Your task to perform on an android device: turn on location history Image 0: 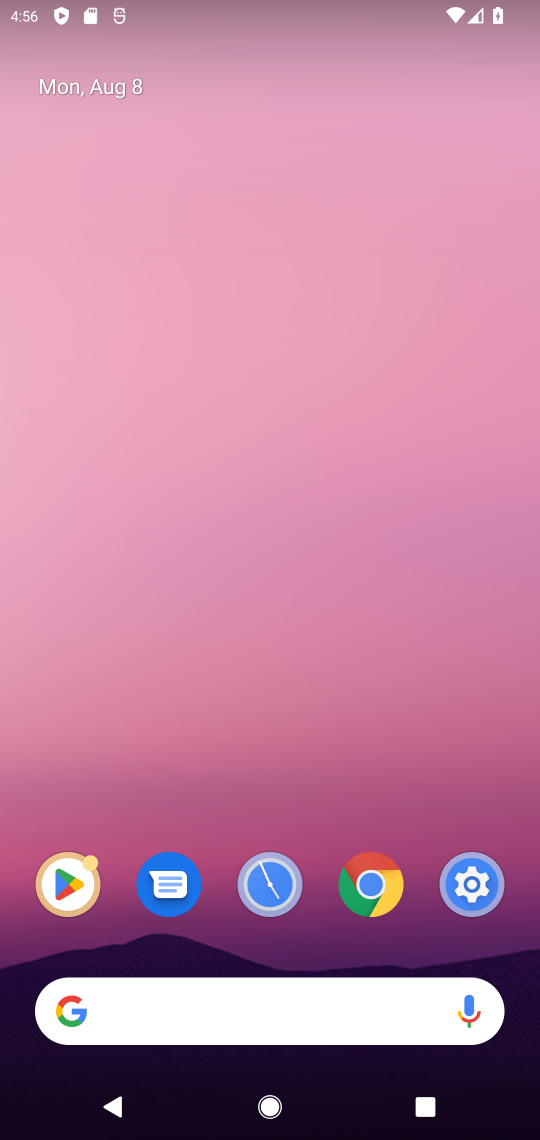
Step 0: drag from (320, 815) to (325, 16)
Your task to perform on an android device: turn on location history Image 1: 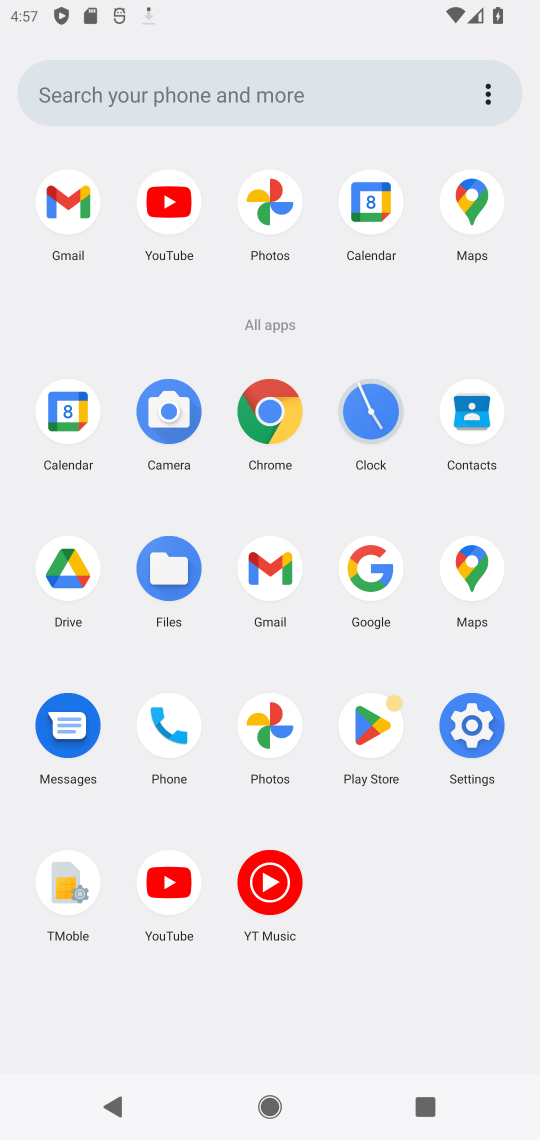
Step 1: click (475, 575)
Your task to perform on an android device: turn on location history Image 2: 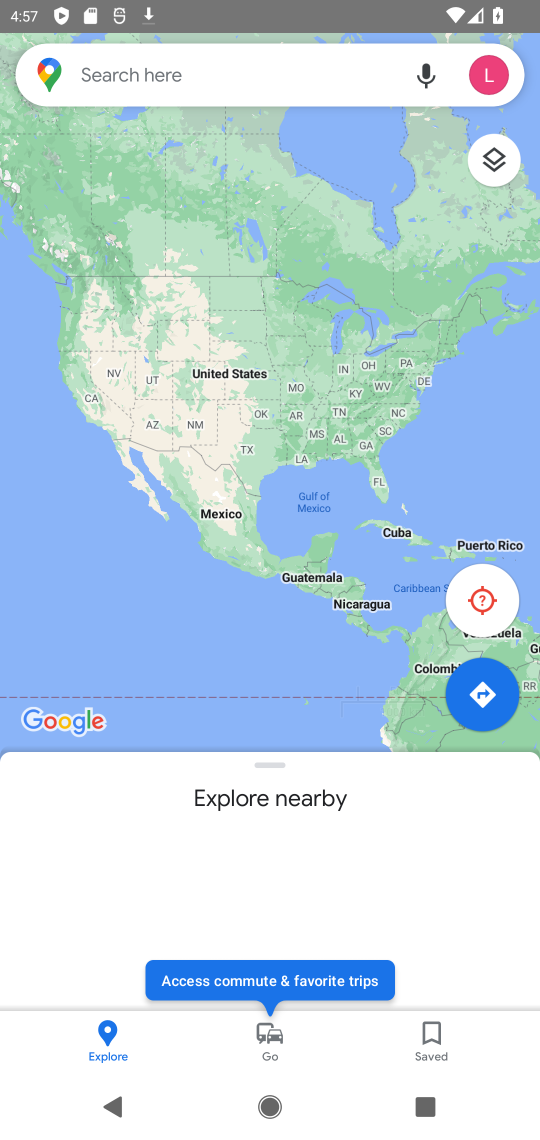
Step 2: click (489, 85)
Your task to perform on an android device: turn on location history Image 3: 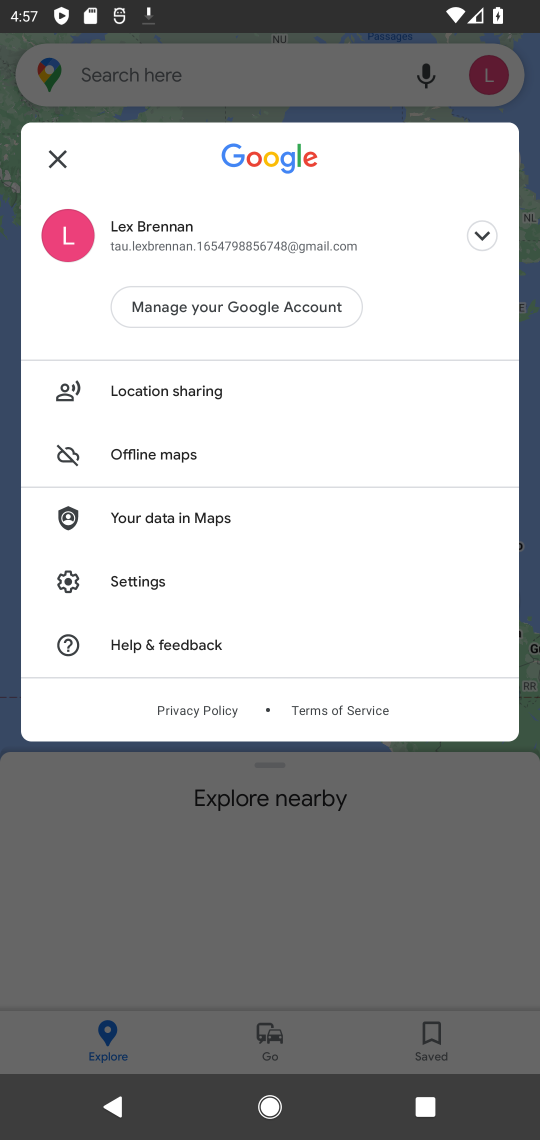
Step 3: click (117, 588)
Your task to perform on an android device: turn on location history Image 4: 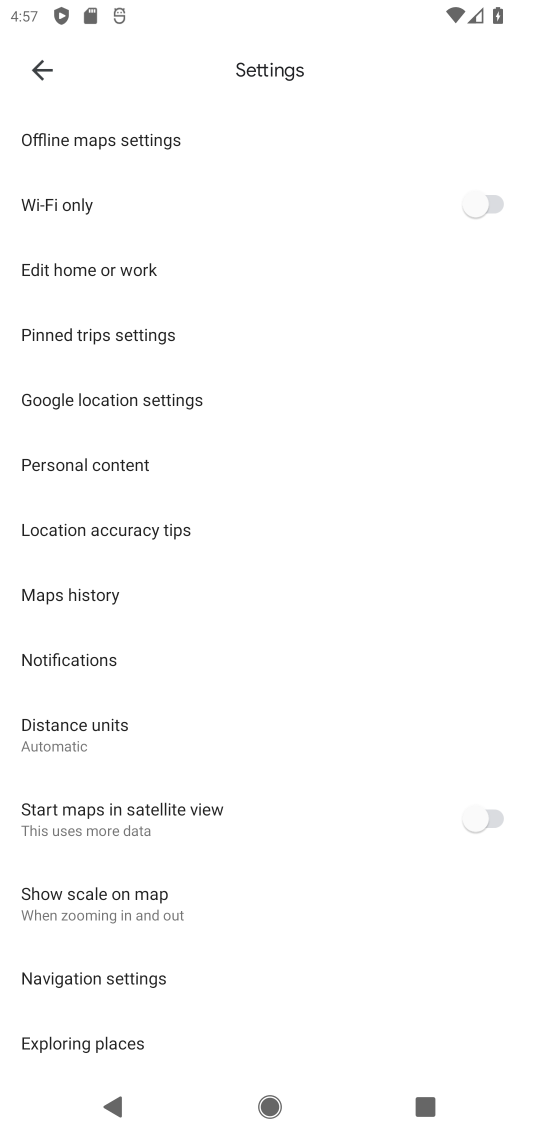
Step 4: task complete